Your task to perform on an android device: toggle location history Image 0: 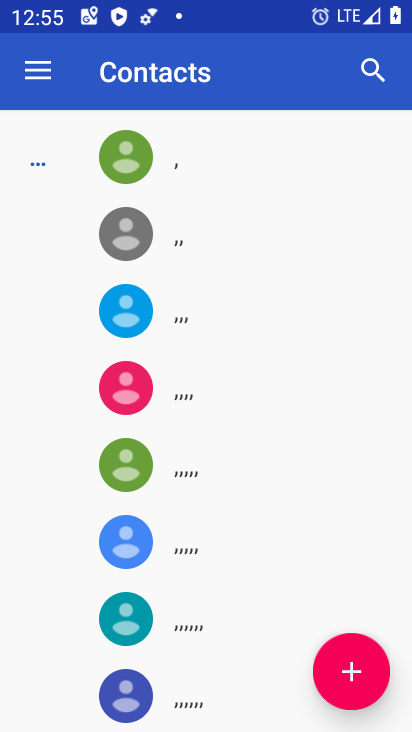
Step 0: press home button
Your task to perform on an android device: toggle location history Image 1: 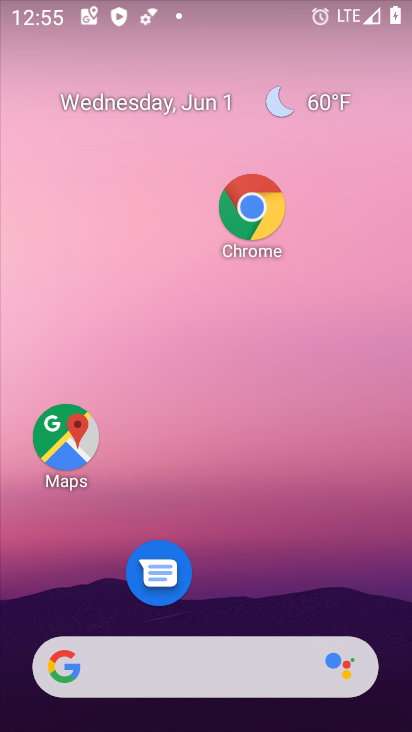
Step 1: drag from (222, 607) to (220, 200)
Your task to perform on an android device: toggle location history Image 2: 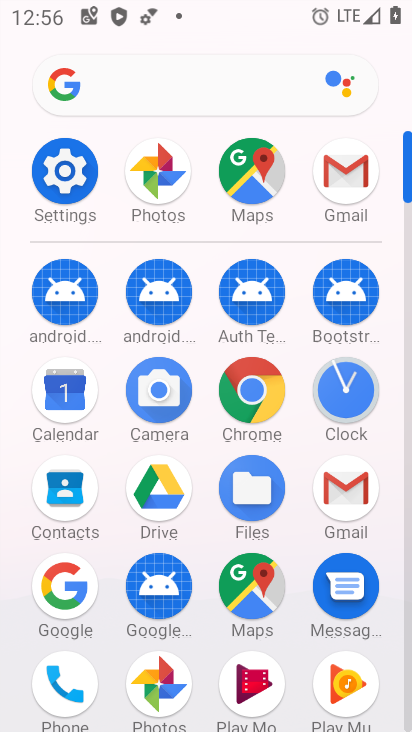
Step 2: click (73, 166)
Your task to perform on an android device: toggle location history Image 3: 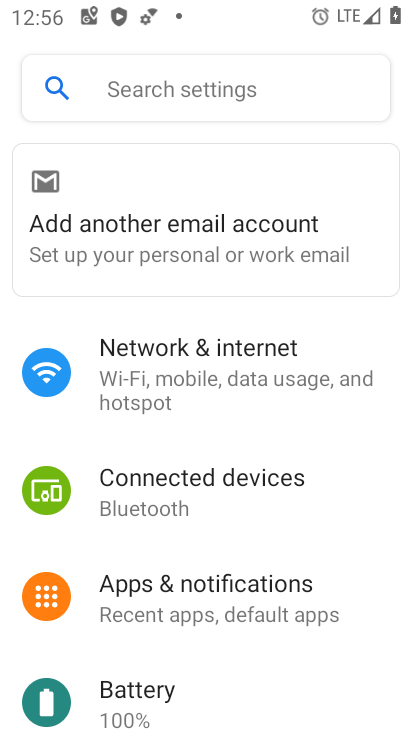
Step 3: drag from (191, 677) to (239, 339)
Your task to perform on an android device: toggle location history Image 4: 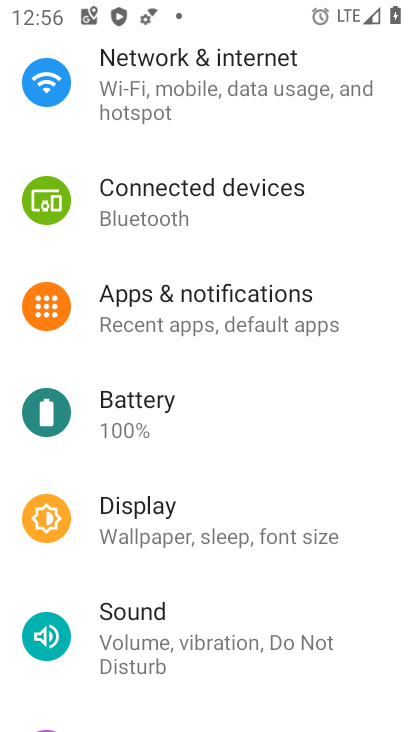
Step 4: drag from (214, 632) to (243, 332)
Your task to perform on an android device: toggle location history Image 5: 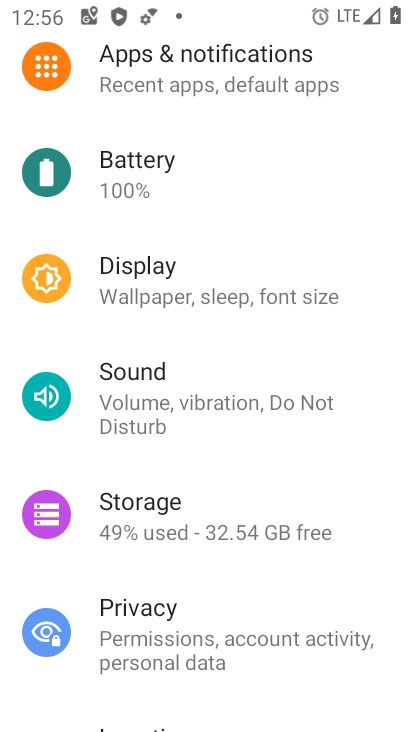
Step 5: drag from (217, 612) to (239, 353)
Your task to perform on an android device: toggle location history Image 6: 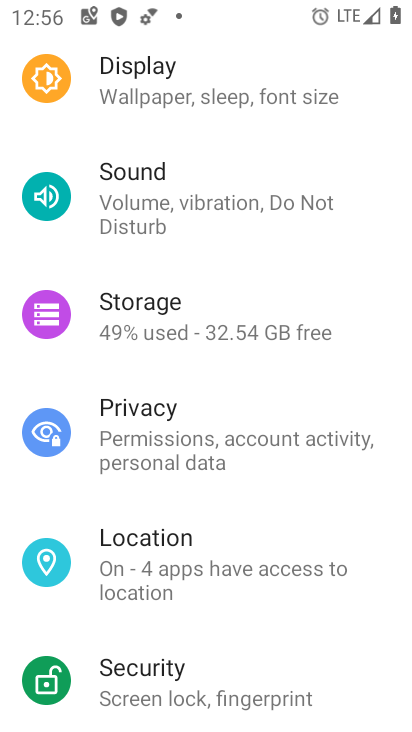
Step 6: click (215, 534)
Your task to perform on an android device: toggle location history Image 7: 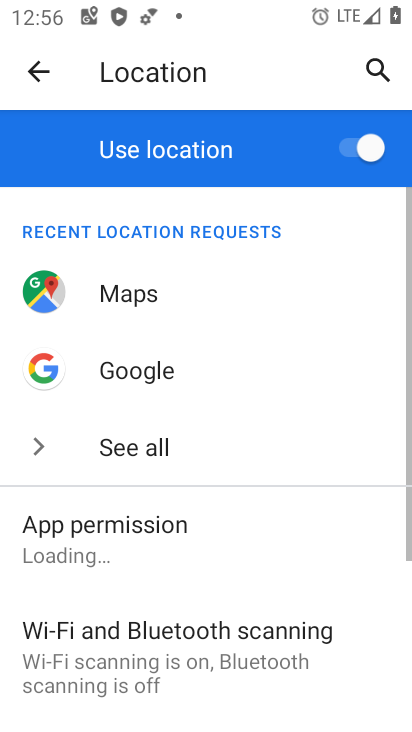
Step 7: drag from (251, 663) to (275, 334)
Your task to perform on an android device: toggle location history Image 8: 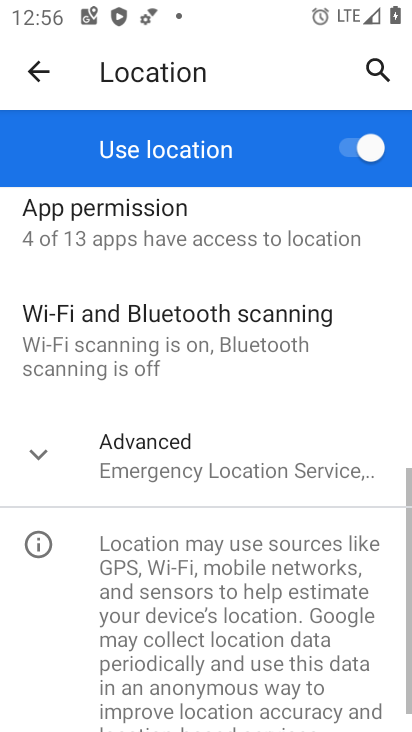
Step 8: click (250, 451)
Your task to perform on an android device: toggle location history Image 9: 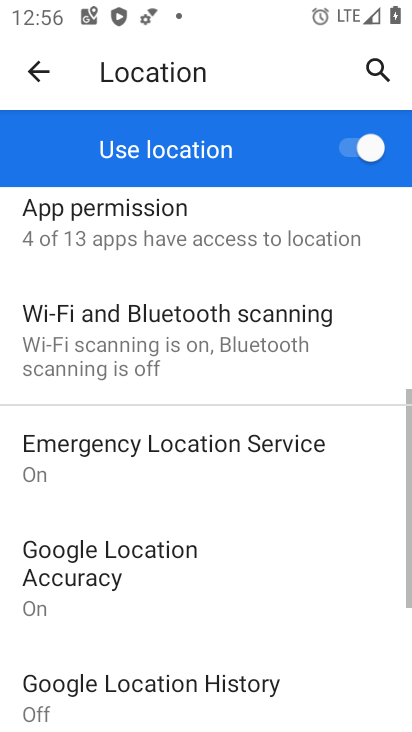
Step 9: drag from (230, 611) to (264, 343)
Your task to perform on an android device: toggle location history Image 10: 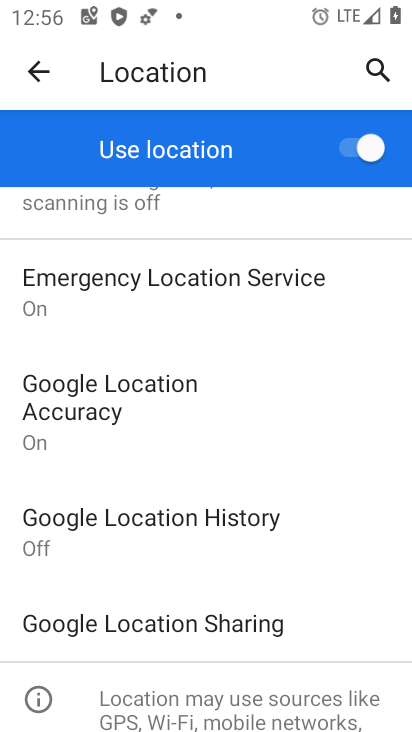
Step 10: click (232, 540)
Your task to perform on an android device: toggle location history Image 11: 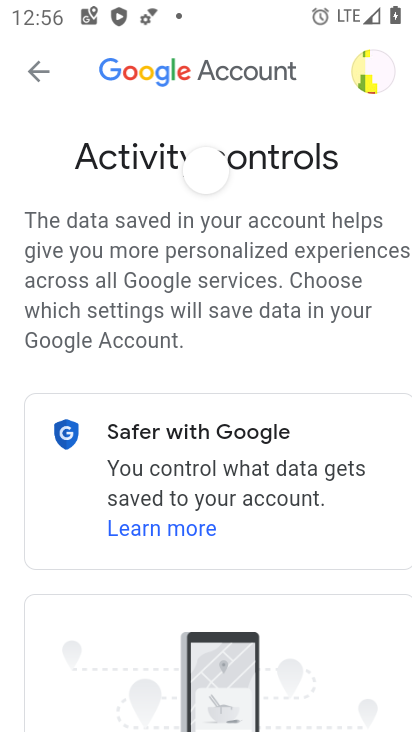
Step 11: drag from (265, 564) to (267, 183)
Your task to perform on an android device: toggle location history Image 12: 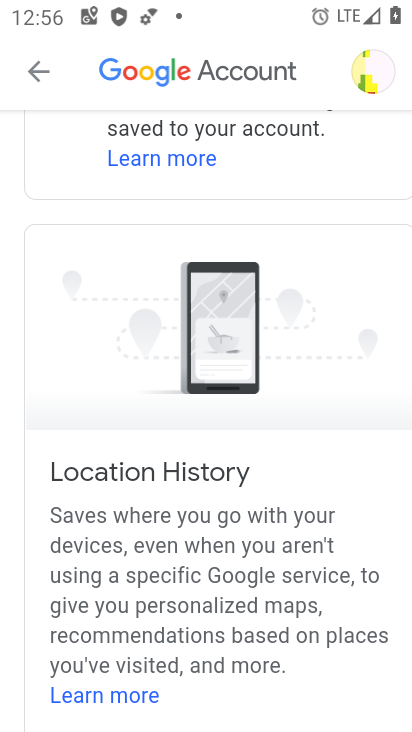
Step 12: drag from (272, 614) to (285, 235)
Your task to perform on an android device: toggle location history Image 13: 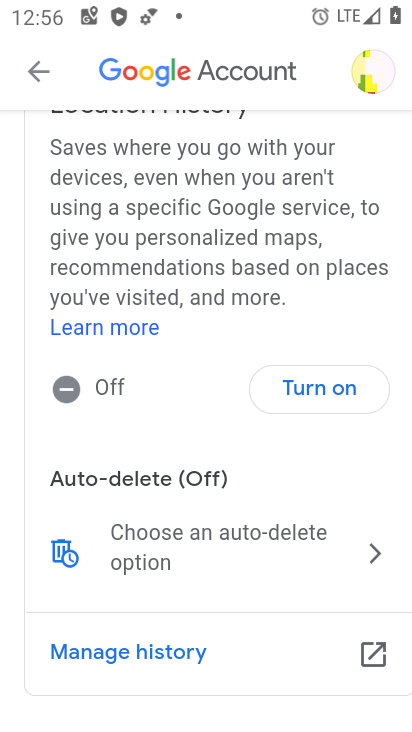
Step 13: click (309, 390)
Your task to perform on an android device: toggle location history Image 14: 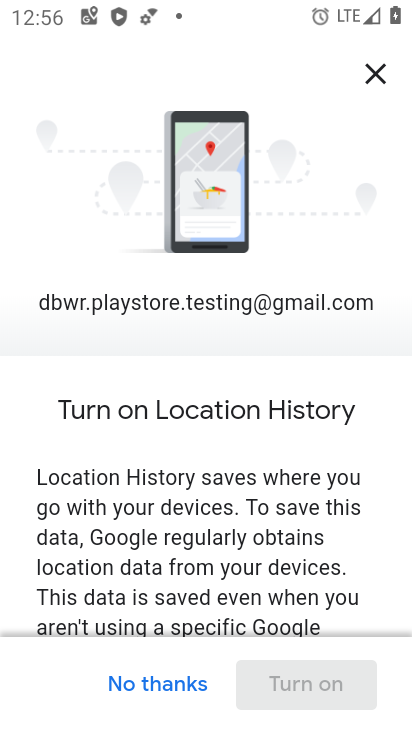
Step 14: drag from (285, 552) to (285, 183)
Your task to perform on an android device: toggle location history Image 15: 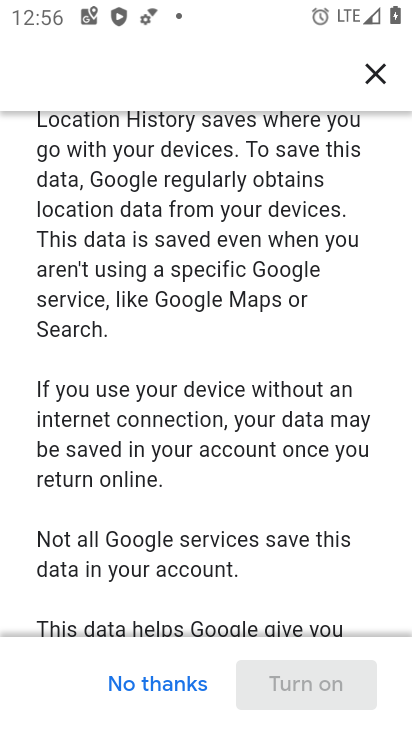
Step 15: drag from (247, 472) to (263, 161)
Your task to perform on an android device: toggle location history Image 16: 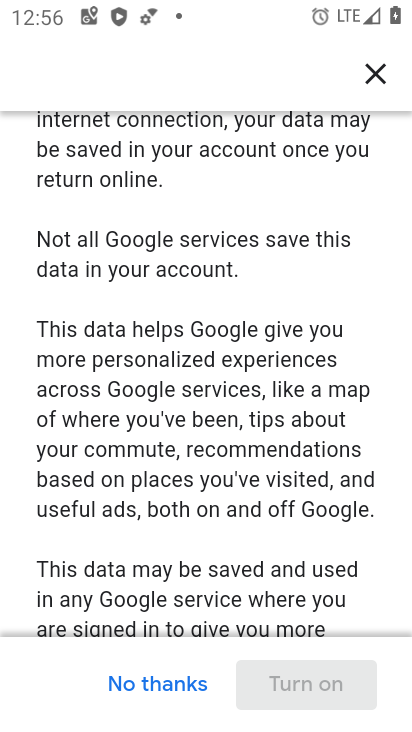
Step 16: drag from (270, 582) to (317, 231)
Your task to perform on an android device: toggle location history Image 17: 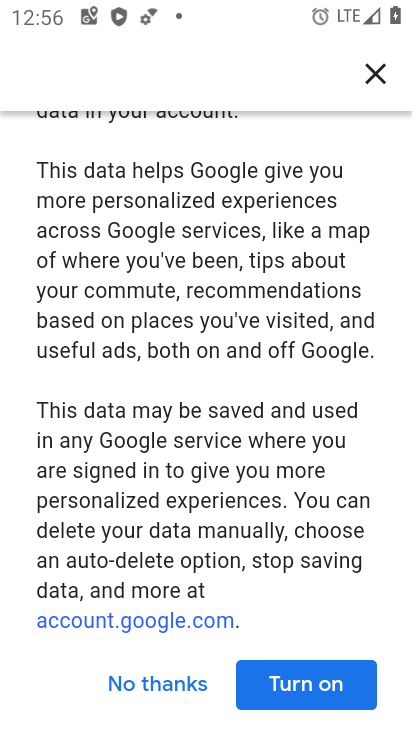
Step 17: click (331, 678)
Your task to perform on an android device: toggle location history Image 18: 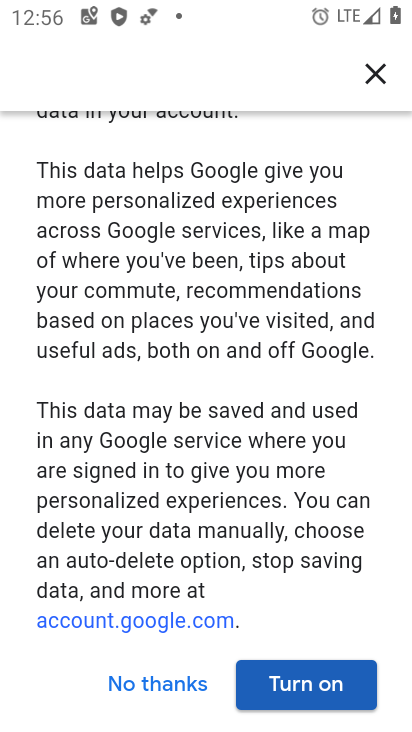
Step 18: click (345, 675)
Your task to perform on an android device: toggle location history Image 19: 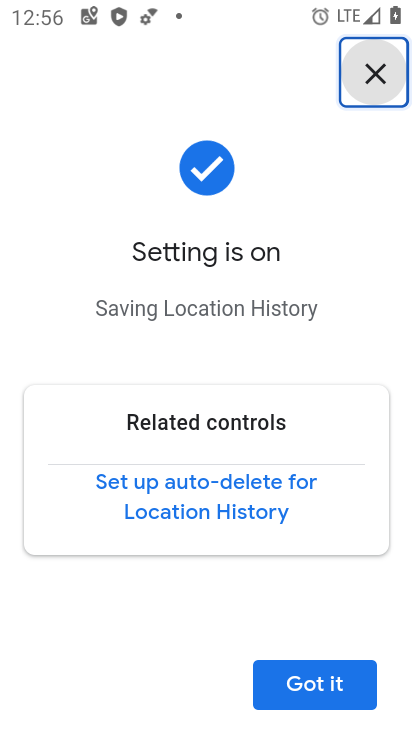
Step 19: task complete